Your task to perform on an android device: Open calendar and show me the first week of next month Image 0: 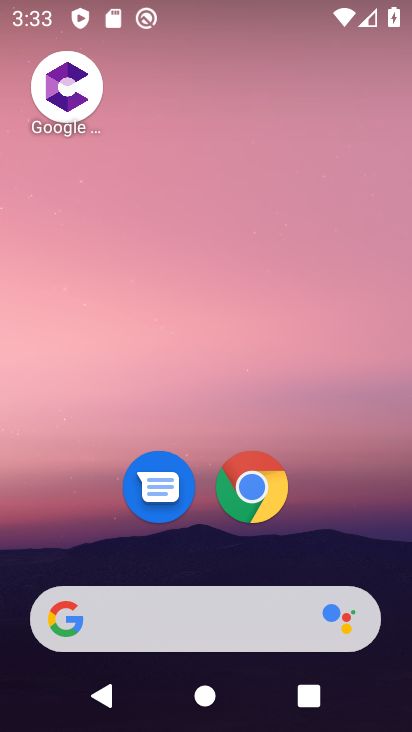
Step 0: drag from (375, 526) to (344, 8)
Your task to perform on an android device: Open calendar and show me the first week of next month Image 1: 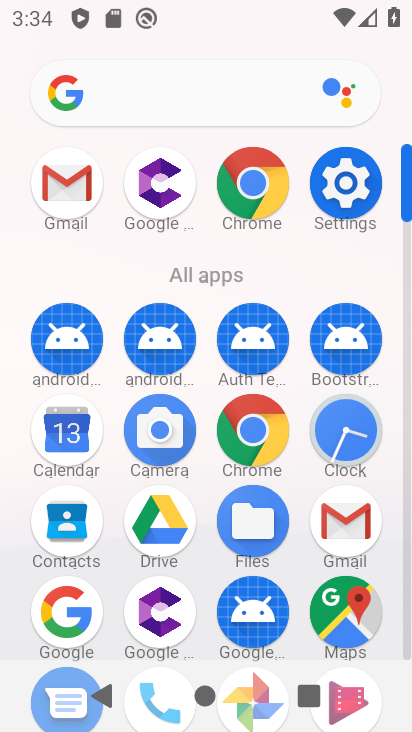
Step 1: click (74, 446)
Your task to perform on an android device: Open calendar and show me the first week of next month Image 2: 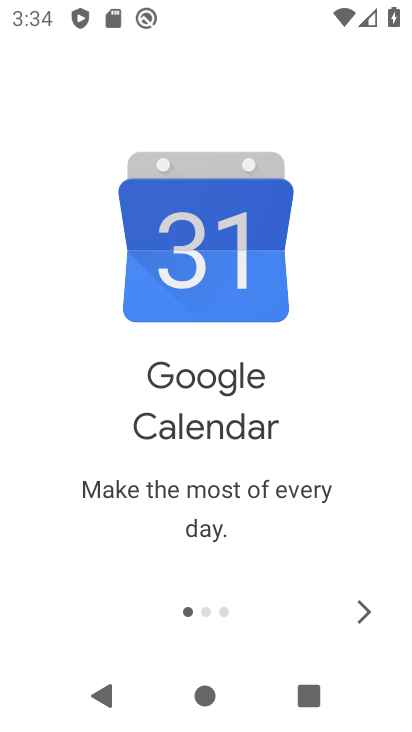
Step 2: click (371, 610)
Your task to perform on an android device: Open calendar and show me the first week of next month Image 3: 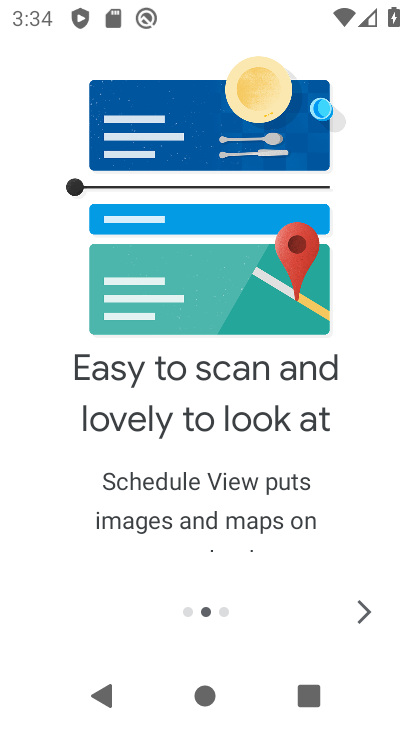
Step 3: click (371, 610)
Your task to perform on an android device: Open calendar and show me the first week of next month Image 4: 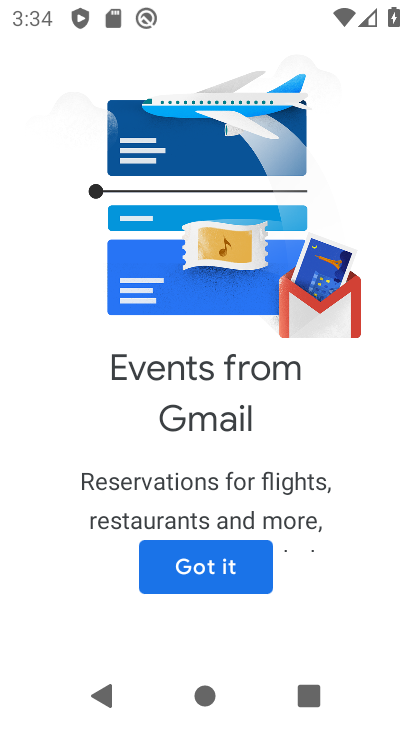
Step 4: click (241, 574)
Your task to perform on an android device: Open calendar and show me the first week of next month Image 5: 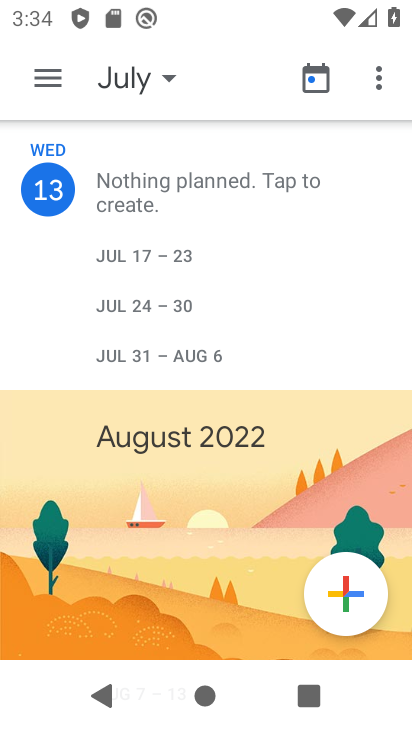
Step 5: click (58, 84)
Your task to perform on an android device: Open calendar and show me the first week of next month Image 6: 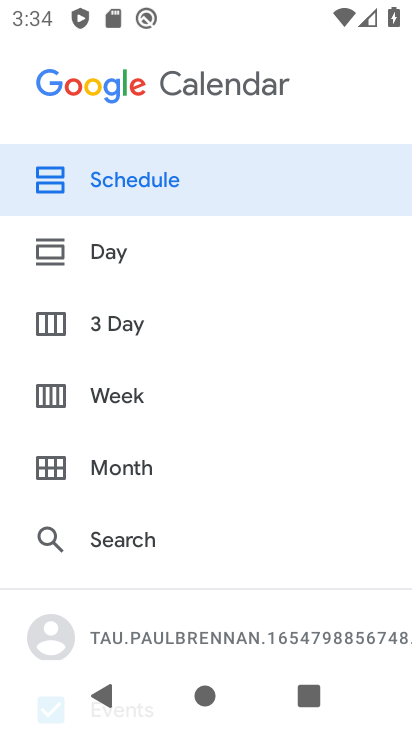
Step 6: click (135, 404)
Your task to perform on an android device: Open calendar and show me the first week of next month Image 7: 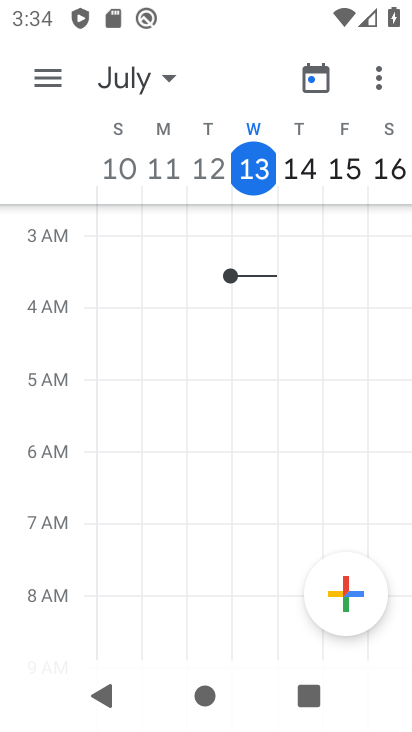
Step 7: click (171, 87)
Your task to perform on an android device: Open calendar and show me the first week of next month Image 8: 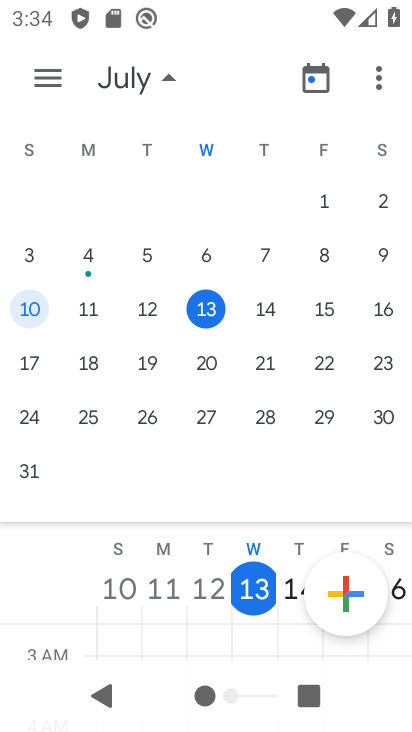
Step 8: drag from (393, 331) to (59, 294)
Your task to perform on an android device: Open calendar and show me the first week of next month Image 9: 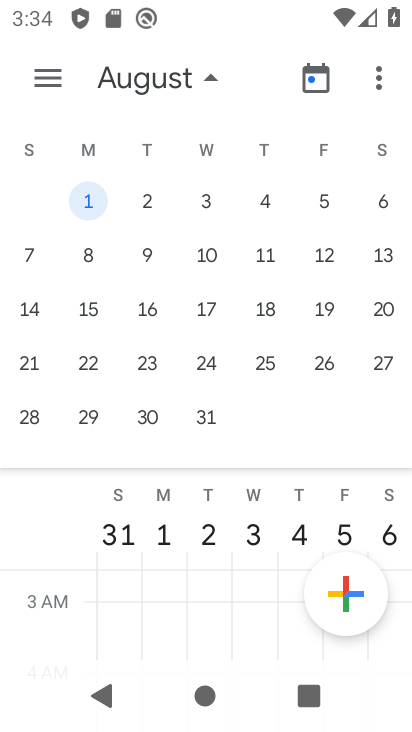
Step 9: click (156, 206)
Your task to perform on an android device: Open calendar and show me the first week of next month Image 10: 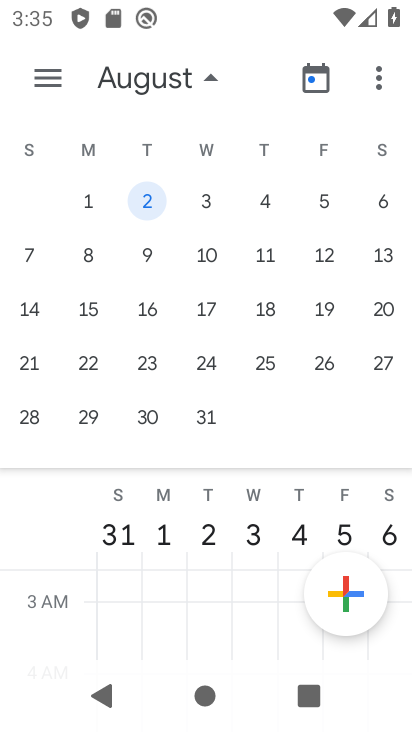
Step 10: task complete